Your task to perform on an android device: Open Chrome and go to settings Image 0: 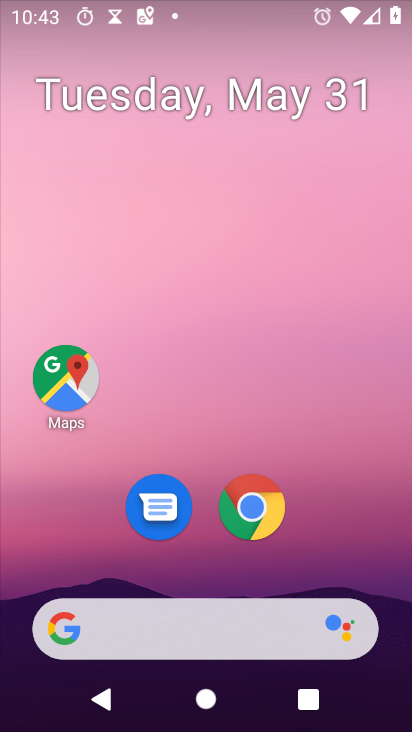
Step 0: press home button
Your task to perform on an android device: Open Chrome and go to settings Image 1: 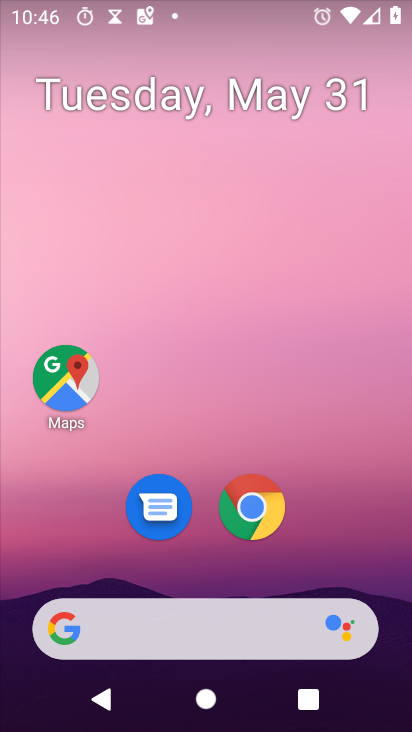
Step 1: click (242, 512)
Your task to perform on an android device: Open Chrome and go to settings Image 2: 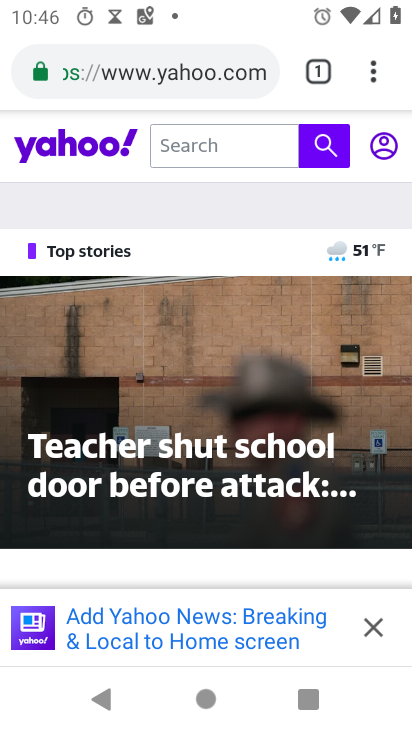
Step 2: click (378, 76)
Your task to perform on an android device: Open Chrome and go to settings Image 3: 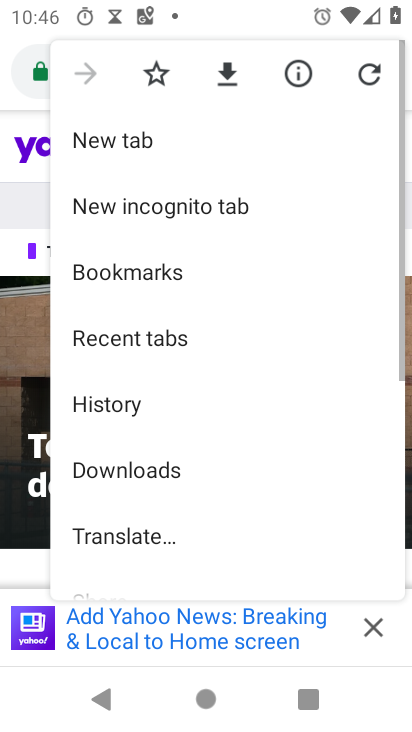
Step 3: drag from (121, 586) to (311, 131)
Your task to perform on an android device: Open Chrome and go to settings Image 4: 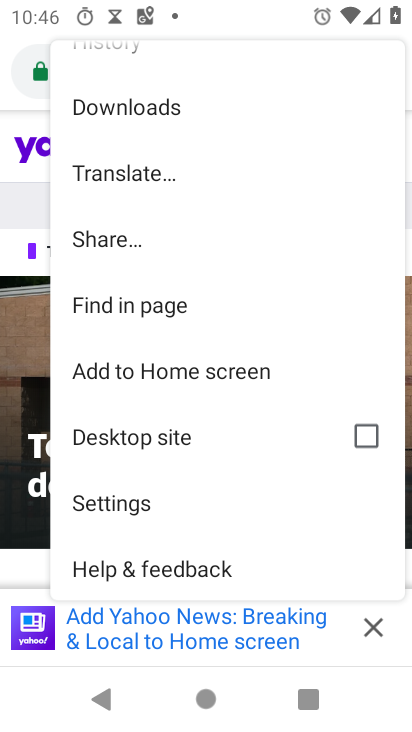
Step 4: click (91, 496)
Your task to perform on an android device: Open Chrome and go to settings Image 5: 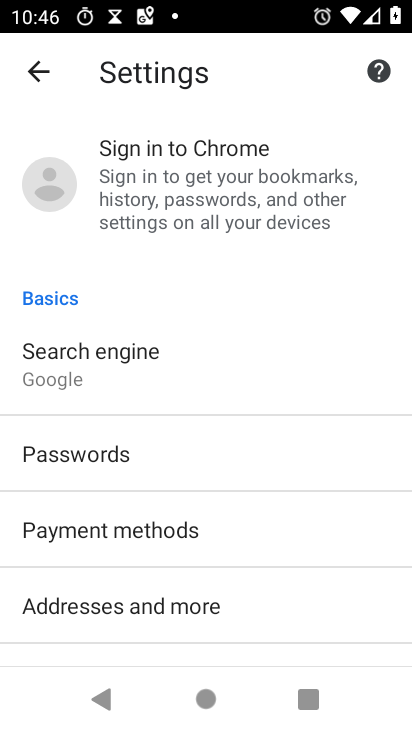
Step 5: task complete